Your task to perform on an android device: move a message to another label in the gmail app Image 0: 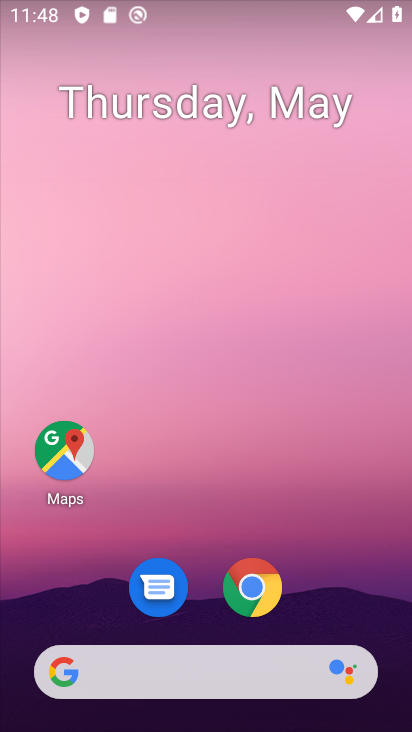
Step 0: drag from (136, 727) to (174, 98)
Your task to perform on an android device: move a message to another label in the gmail app Image 1: 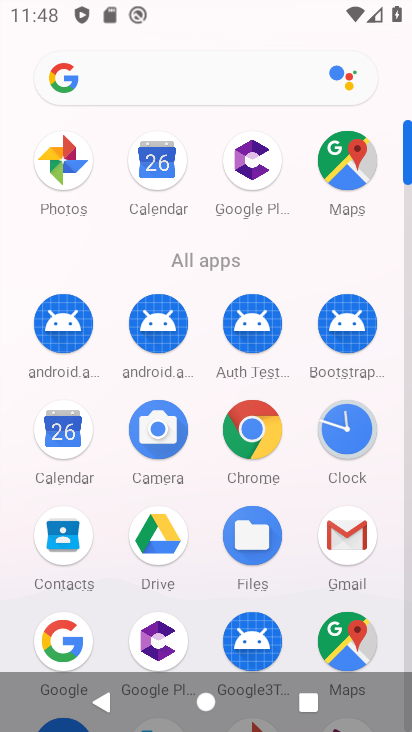
Step 1: click (347, 539)
Your task to perform on an android device: move a message to another label in the gmail app Image 2: 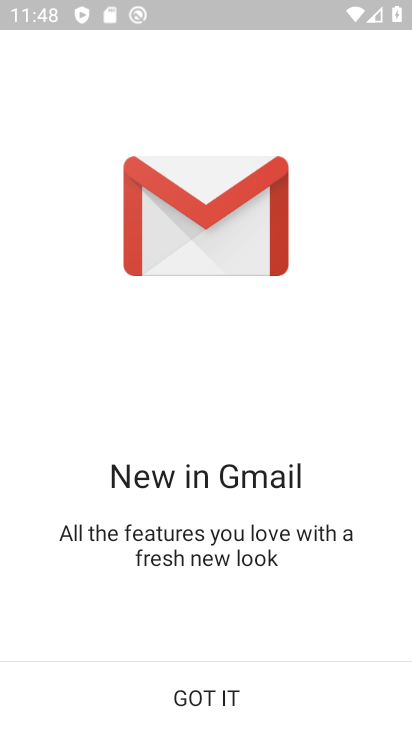
Step 2: click (227, 693)
Your task to perform on an android device: move a message to another label in the gmail app Image 3: 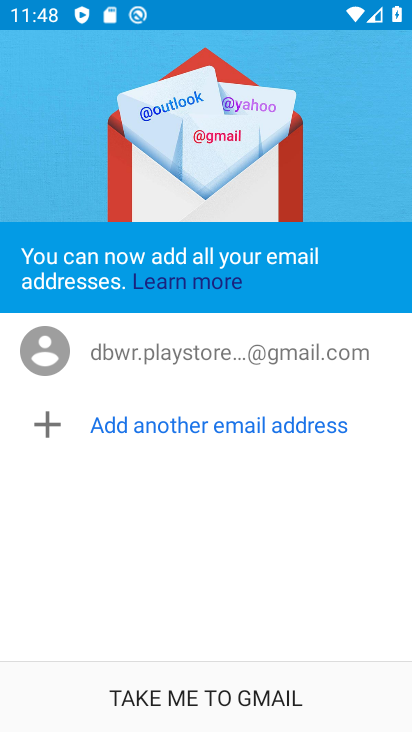
Step 3: click (244, 682)
Your task to perform on an android device: move a message to another label in the gmail app Image 4: 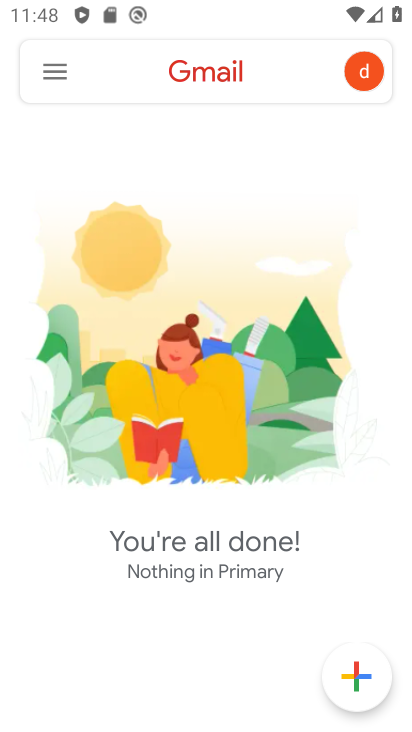
Step 4: click (61, 77)
Your task to perform on an android device: move a message to another label in the gmail app Image 5: 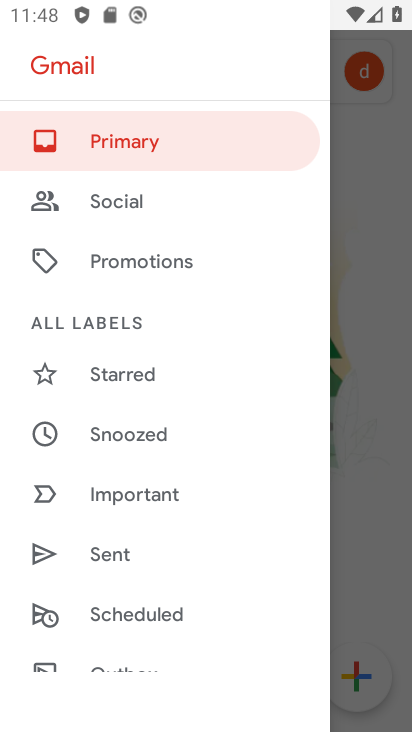
Step 5: drag from (198, 645) to (171, 250)
Your task to perform on an android device: move a message to another label in the gmail app Image 6: 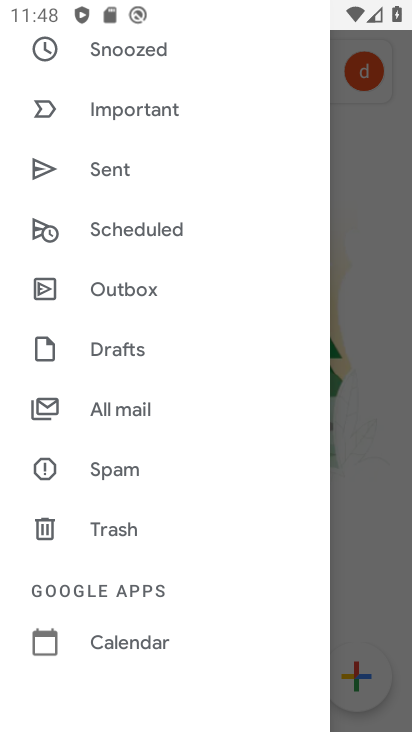
Step 6: click (114, 414)
Your task to perform on an android device: move a message to another label in the gmail app Image 7: 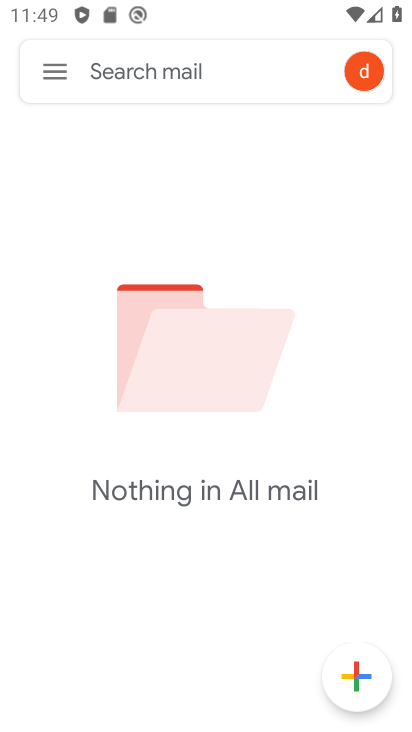
Step 7: task complete